Your task to perform on an android device: Go to Wikipedia Image 0: 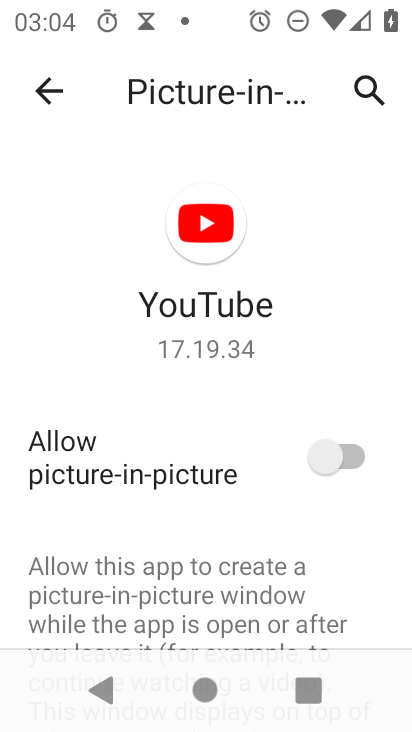
Step 0: press home button
Your task to perform on an android device: Go to Wikipedia Image 1: 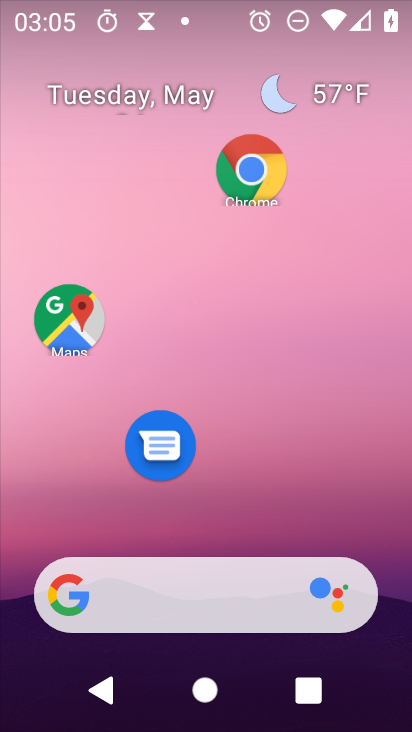
Step 1: click (253, 172)
Your task to perform on an android device: Go to Wikipedia Image 2: 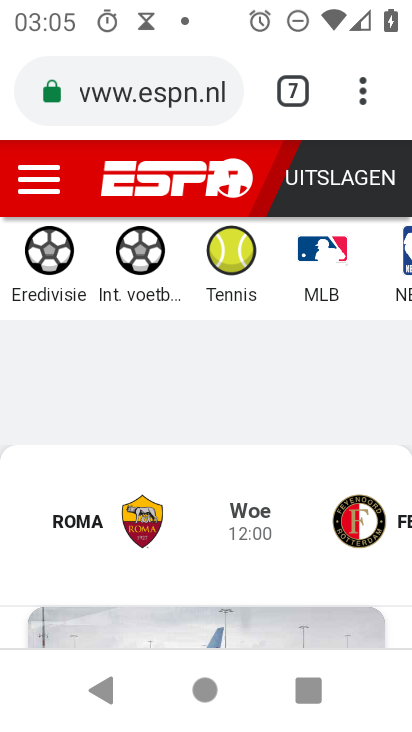
Step 2: click (361, 100)
Your task to perform on an android device: Go to Wikipedia Image 3: 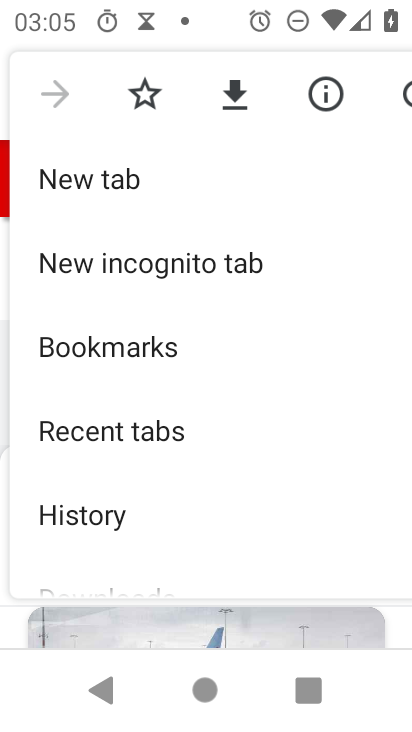
Step 3: click (84, 178)
Your task to perform on an android device: Go to Wikipedia Image 4: 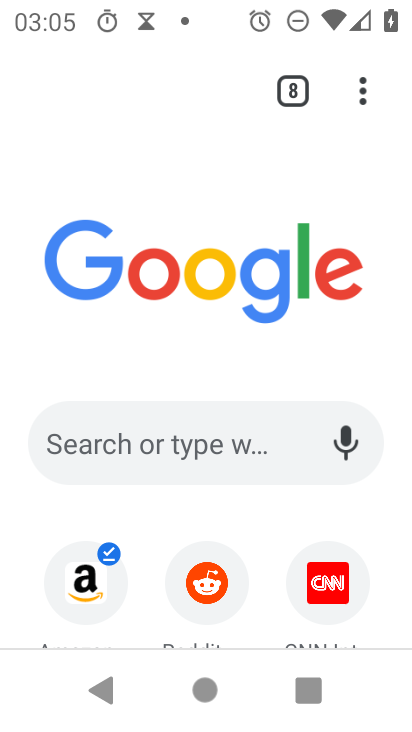
Step 4: drag from (144, 618) to (148, 388)
Your task to perform on an android device: Go to Wikipedia Image 5: 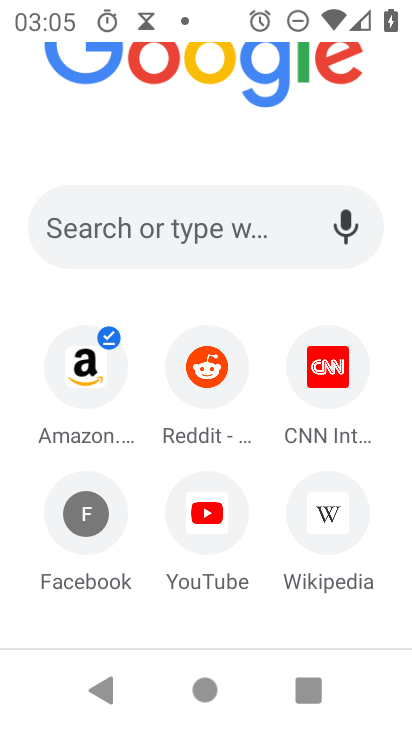
Step 5: click (323, 507)
Your task to perform on an android device: Go to Wikipedia Image 6: 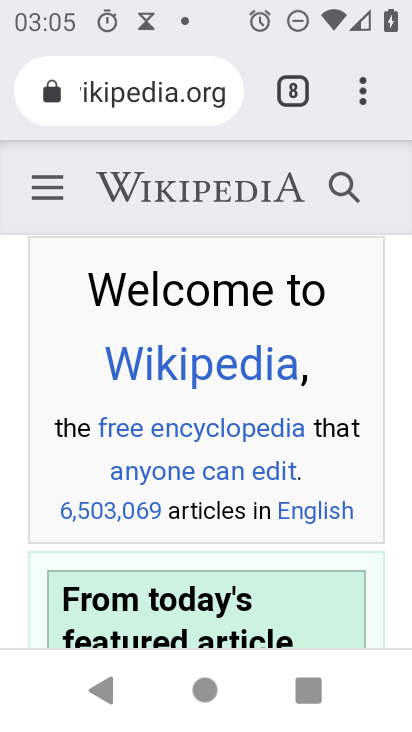
Step 6: task complete